Your task to perform on an android device: change alarm snooze length Image 0: 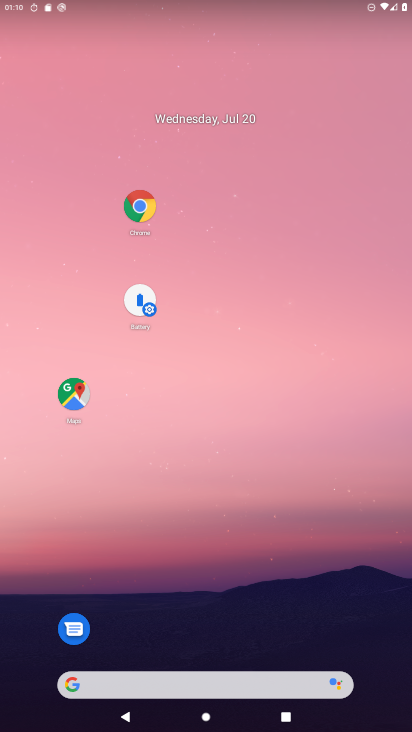
Step 0: drag from (212, 578) to (201, 200)
Your task to perform on an android device: change alarm snooze length Image 1: 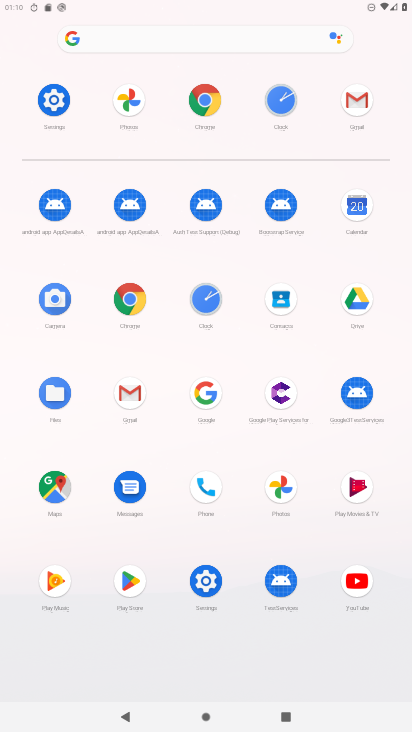
Step 1: click (204, 296)
Your task to perform on an android device: change alarm snooze length Image 2: 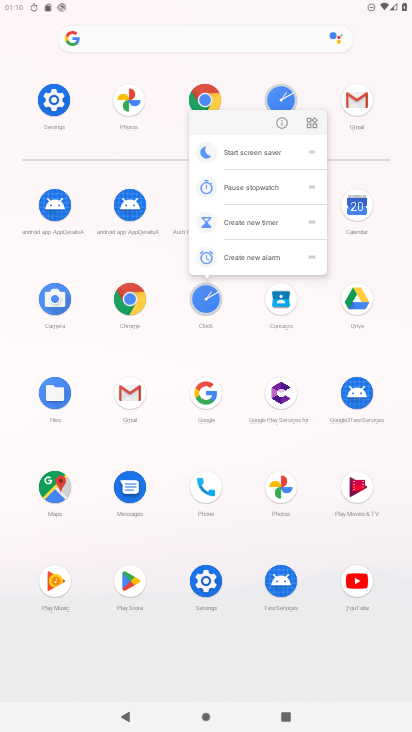
Step 2: click (277, 125)
Your task to perform on an android device: change alarm snooze length Image 3: 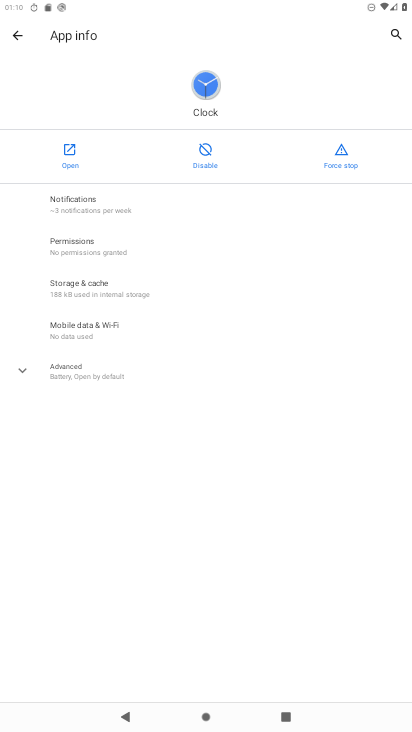
Step 3: click (65, 160)
Your task to perform on an android device: change alarm snooze length Image 4: 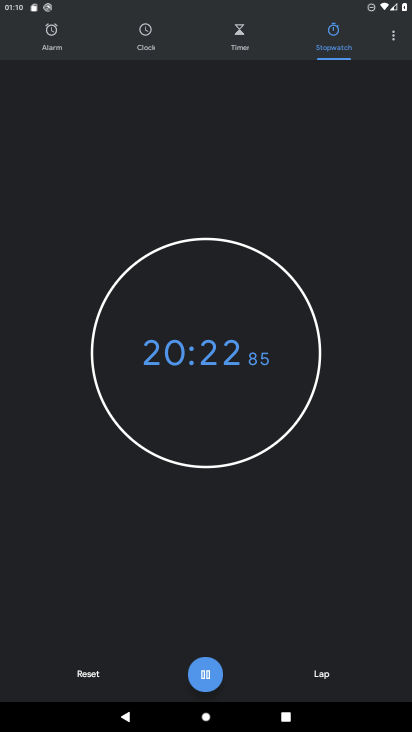
Step 4: click (393, 35)
Your task to perform on an android device: change alarm snooze length Image 5: 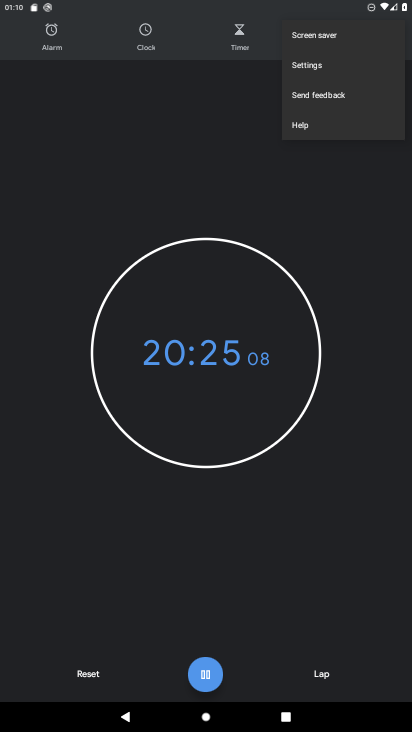
Step 5: click (315, 63)
Your task to perform on an android device: change alarm snooze length Image 6: 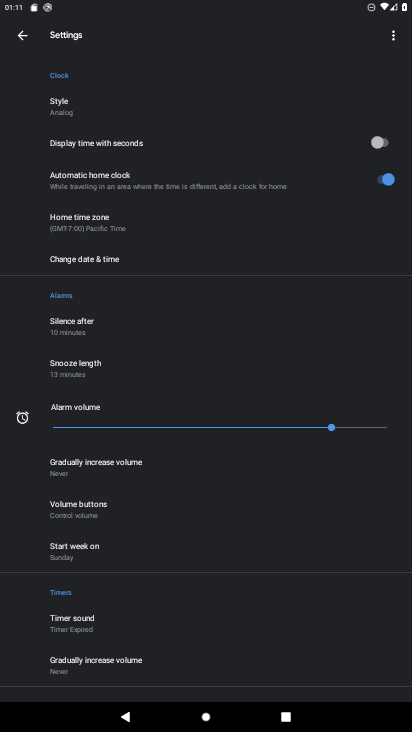
Step 6: click (108, 372)
Your task to perform on an android device: change alarm snooze length Image 7: 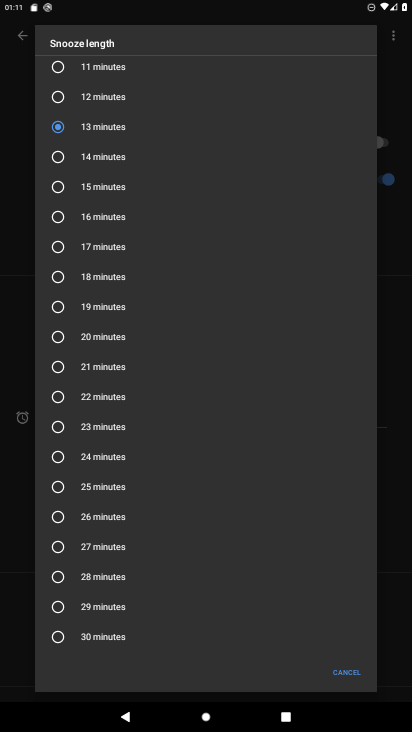
Step 7: click (92, 371)
Your task to perform on an android device: change alarm snooze length Image 8: 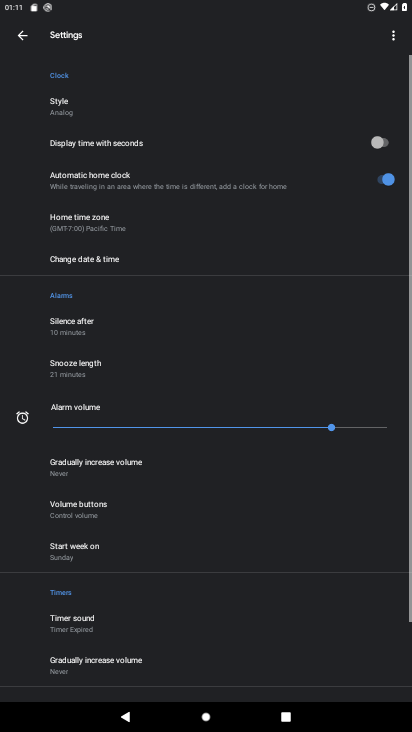
Step 8: task complete